Your task to perform on an android device: turn on showing notifications on the lock screen Image 0: 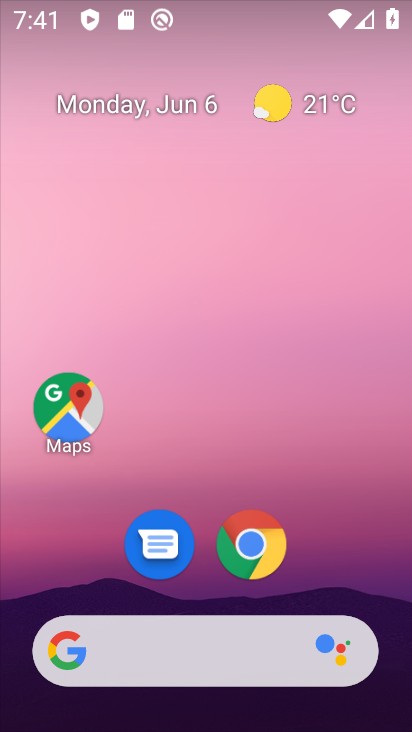
Step 0: drag from (316, 552) to (347, 233)
Your task to perform on an android device: turn on showing notifications on the lock screen Image 1: 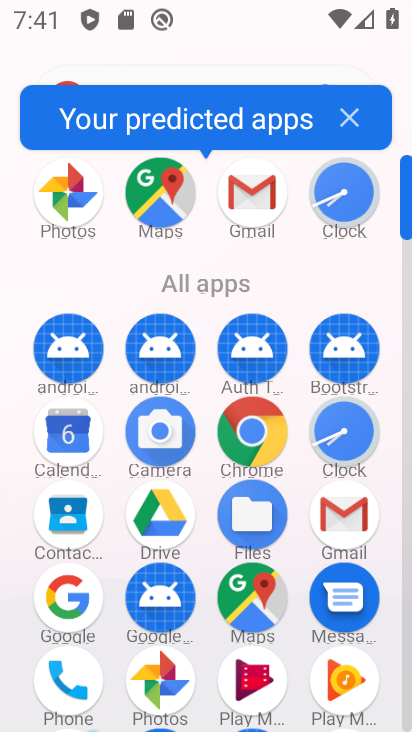
Step 1: drag from (186, 619) to (214, 296)
Your task to perform on an android device: turn on showing notifications on the lock screen Image 2: 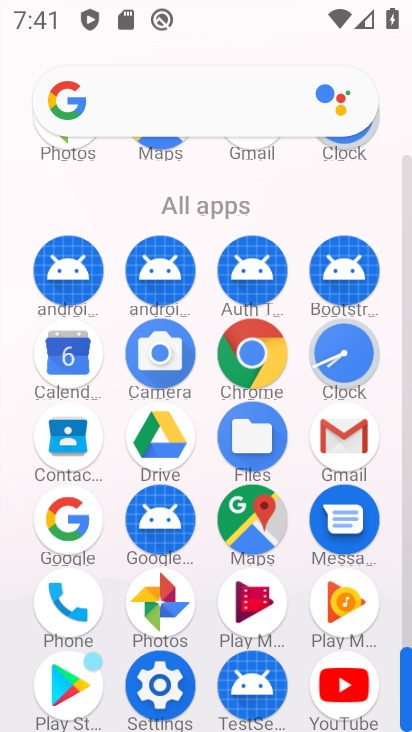
Step 2: click (163, 677)
Your task to perform on an android device: turn on showing notifications on the lock screen Image 3: 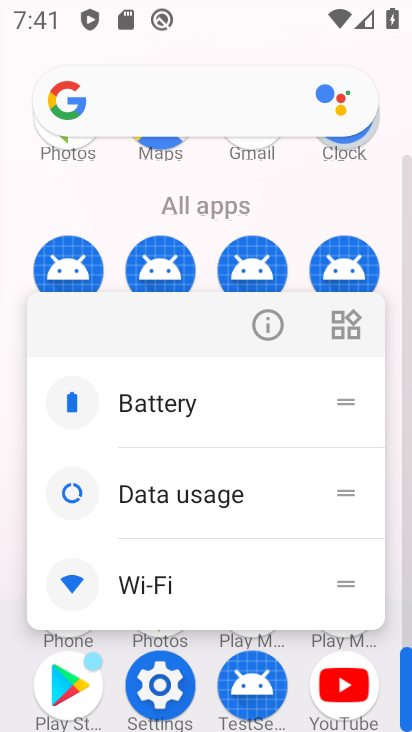
Step 3: click (145, 690)
Your task to perform on an android device: turn on showing notifications on the lock screen Image 4: 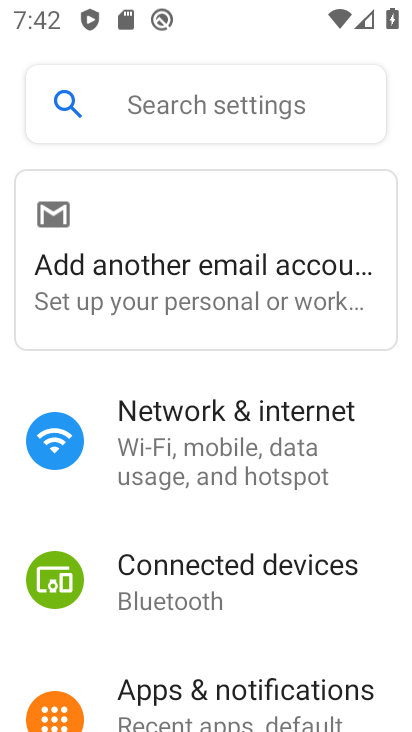
Step 4: drag from (226, 666) to (267, 457)
Your task to perform on an android device: turn on showing notifications on the lock screen Image 5: 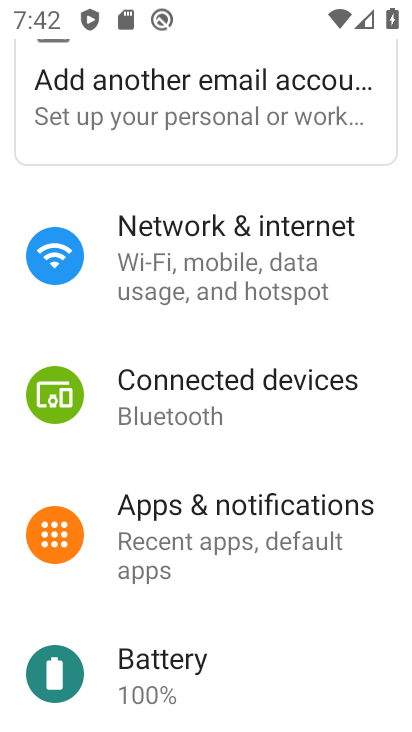
Step 5: click (203, 536)
Your task to perform on an android device: turn on showing notifications on the lock screen Image 6: 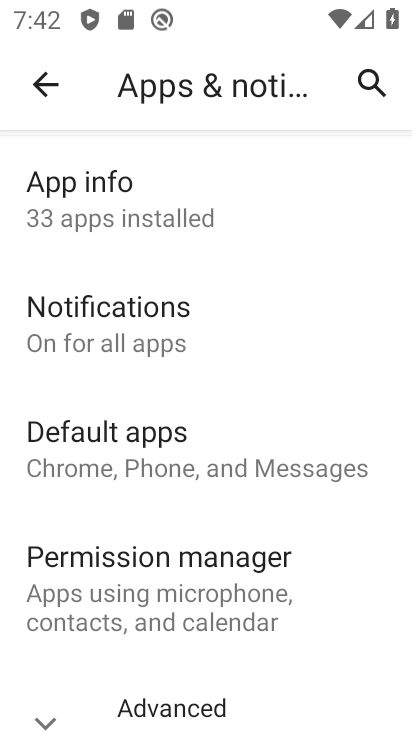
Step 6: click (126, 325)
Your task to perform on an android device: turn on showing notifications on the lock screen Image 7: 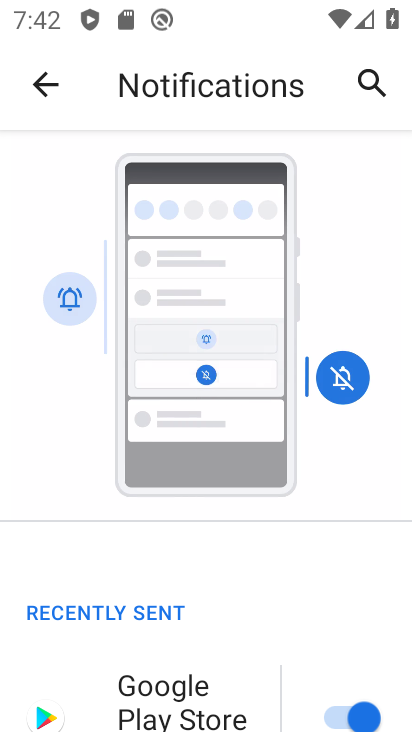
Step 7: drag from (167, 548) to (227, 171)
Your task to perform on an android device: turn on showing notifications on the lock screen Image 8: 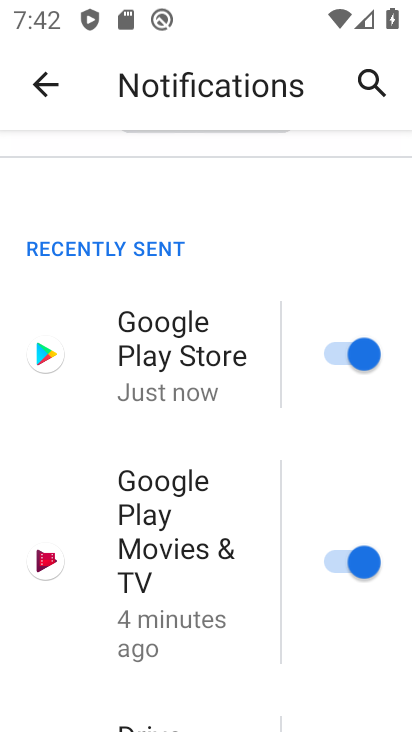
Step 8: drag from (164, 475) to (183, 282)
Your task to perform on an android device: turn on showing notifications on the lock screen Image 9: 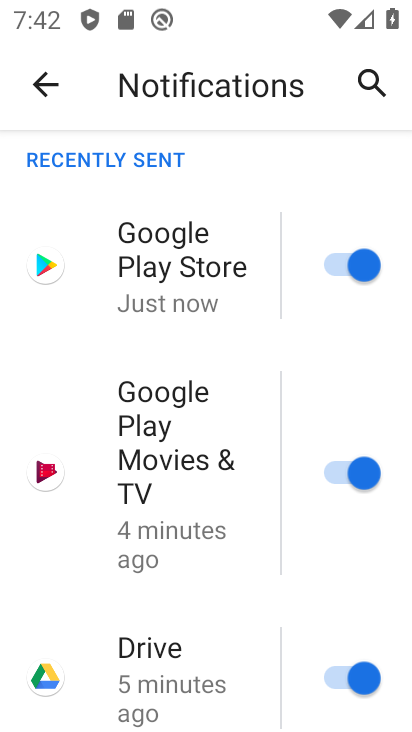
Step 9: drag from (162, 673) to (193, 220)
Your task to perform on an android device: turn on showing notifications on the lock screen Image 10: 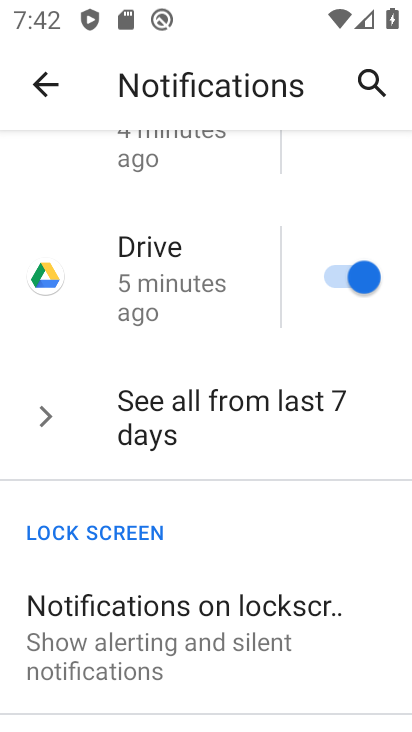
Step 10: click (178, 627)
Your task to perform on an android device: turn on showing notifications on the lock screen Image 11: 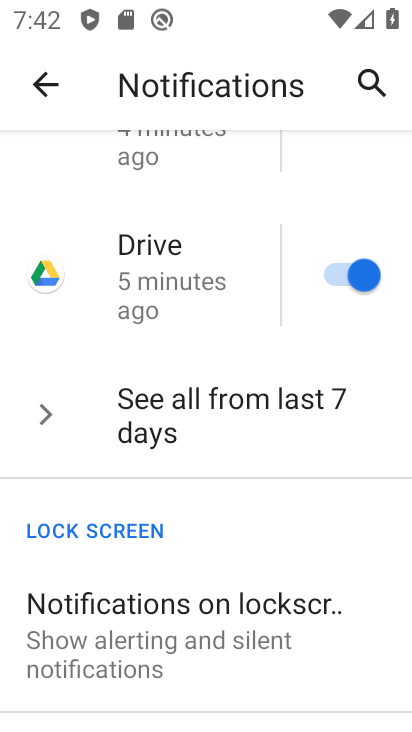
Step 11: click (113, 620)
Your task to perform on an android device: turn on showing notifications on the lock screen Image 12: 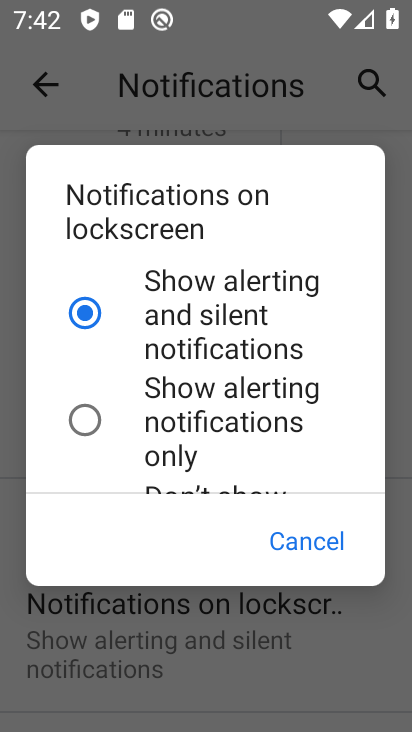
Step 12: task complete